Your task to perform on an android device: Do I have any events this weekend? Image 0: 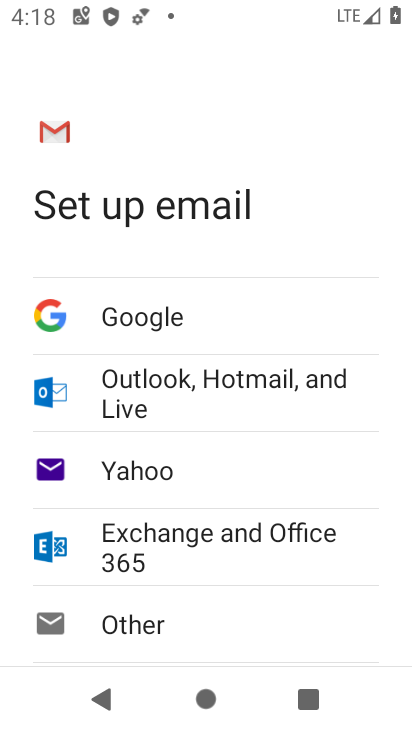
Step 0: press home button
Your task to perform on an android device: Do I have any events this weekend? Image 1: 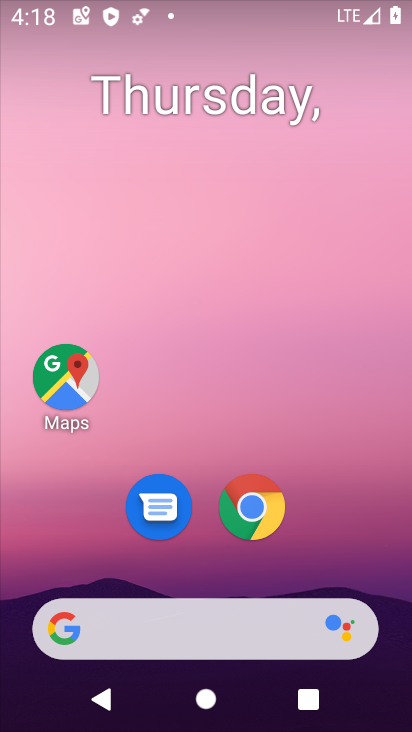
Step 1: drag from (356, 548) to (306, 76)
Your task to perform on an android device: Do I have any events this weekend? Image 2: 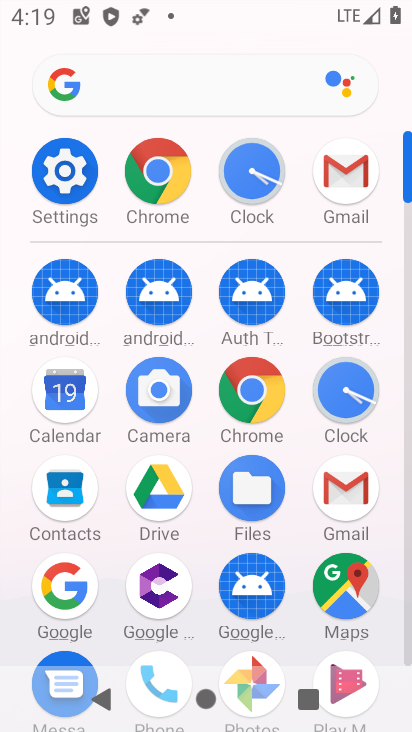
Step 2: click (54, 402)
Your task to perform on an android device: Do I have any events this weekend? Image 3: 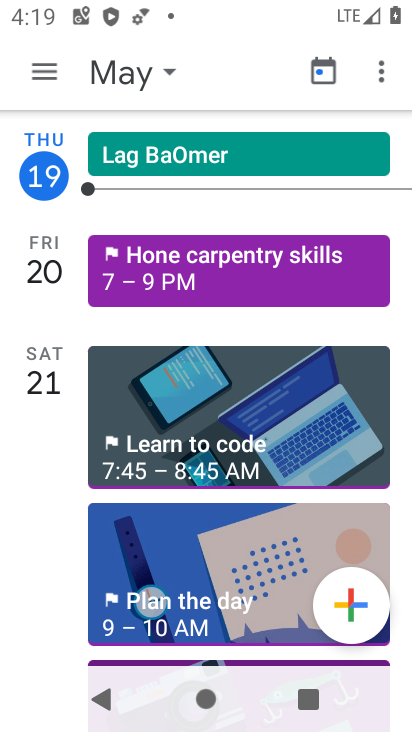
Step 3: click (158, 71)
Your task to perform on an android device: Do I have any events this weekend? Image 4: 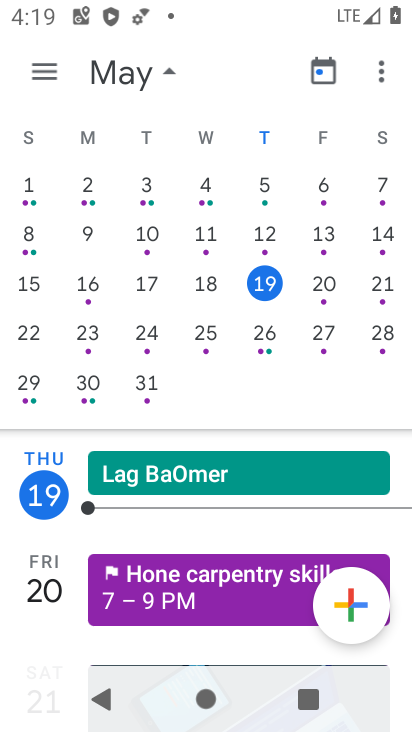
Step 4: click (158, 71)
Your task to perform on an android device: Do I have any events this weekend? Image 5: 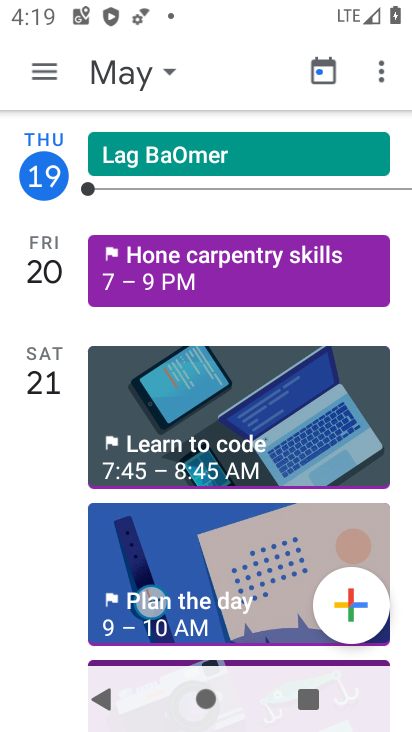
Step 5: task complete